Your task to perform on an android device: see creations saved in the google photos Image 0: 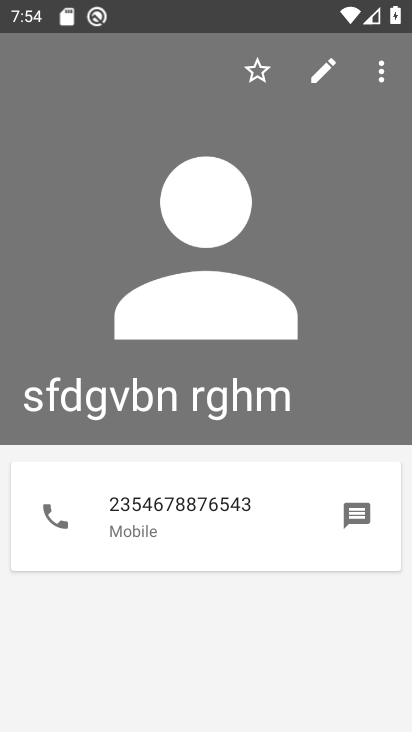
Step 0: drag from (93, 288) to (350, 273)
Your task to perform on an android device: see creations saved in the google photos Image 1: 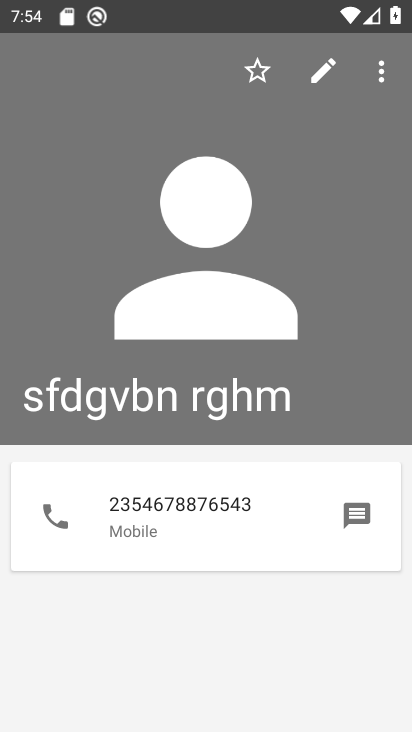
Step 1: click (312, 211)
Your task to perform on an android device: see creations saved in the google photos Image 2: 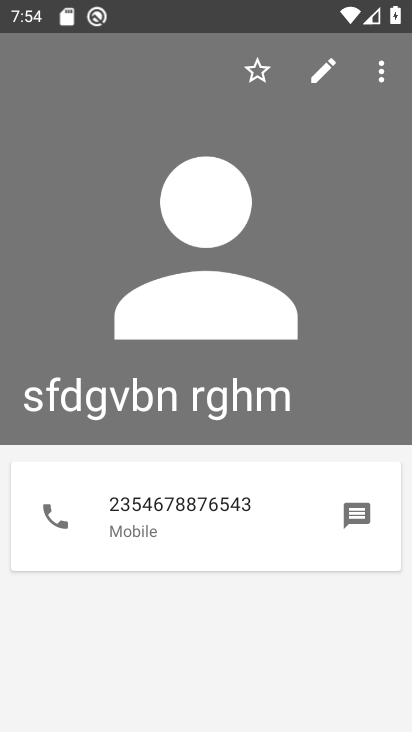
Step 2: press home button
Your task to perform on an android device: see creations saved in the google photos Image 3: 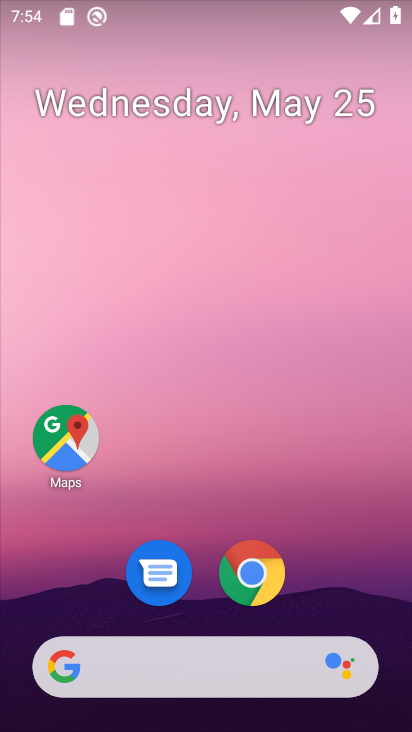
Step 3: drag from (391, 648) to (315, 280)
Your task to perform on an android device: see creations saved in the google photos Image 4: 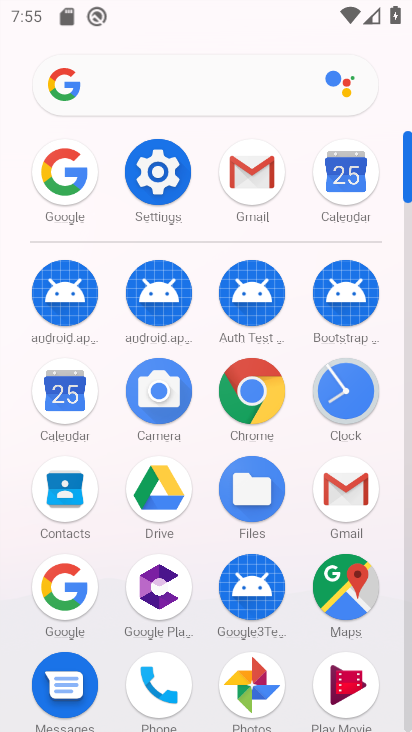
Step 4: click (248, 670)
Your task to perform on an android device: see creations saved in the google photos Image 5: 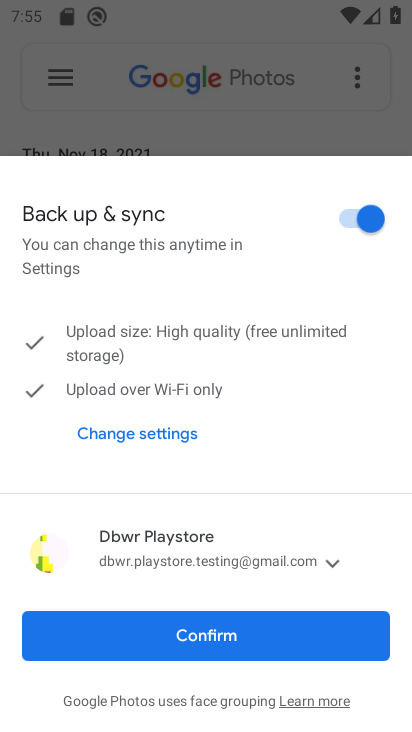
Step 5: click (266, 644)
Your task to perform on an android device: see creations saved in the google photos Image 6: 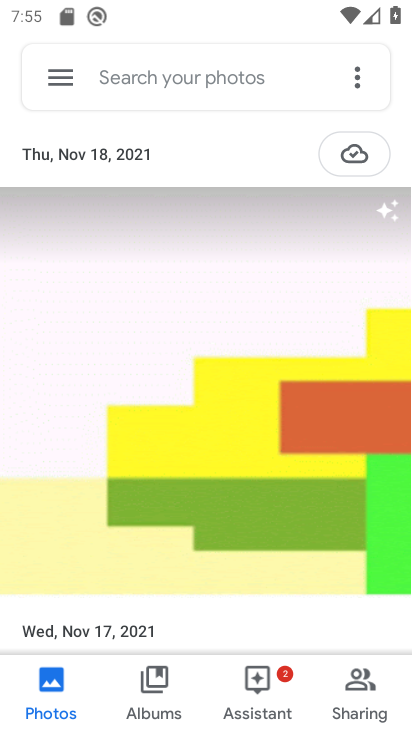
Step 6: task complete